Your task to perform on an android device: Open Yahoo.com Image 0: 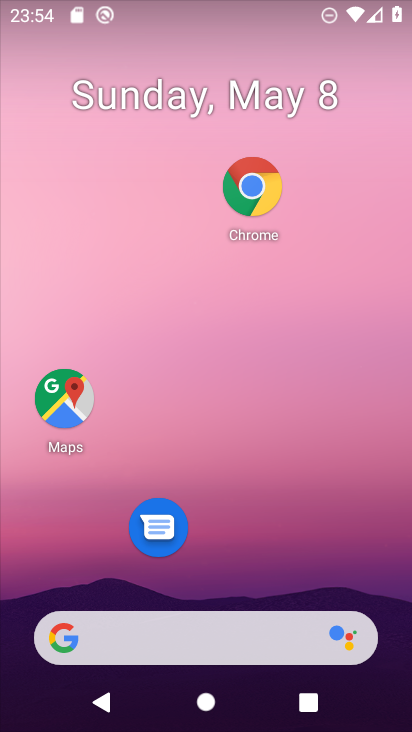
Step 0: drag from (307, 387) to (340, 261)
Your task to perform on an android device: Open Yahoo.com Image 1: 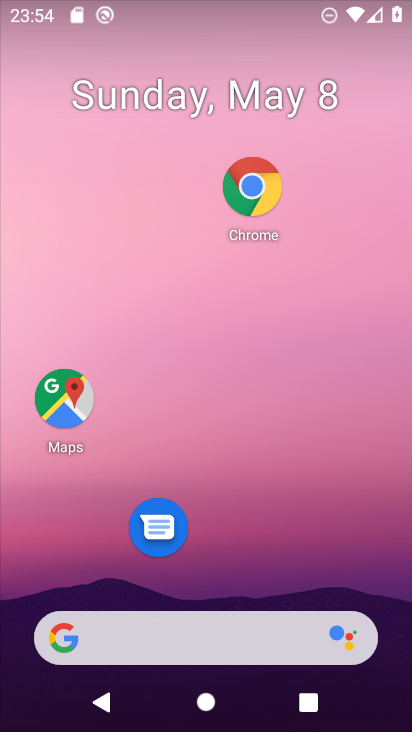
Step 1: click (262, 192)
Your task to perform on an android device: Open Yahoo.com Image 2: 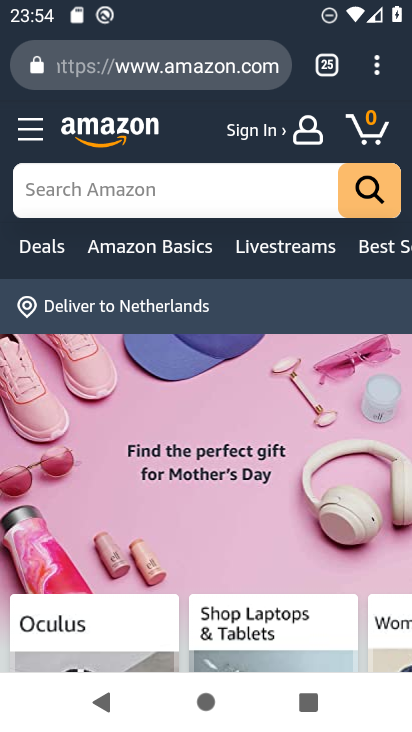
Step 2: click (361, 62)
Your task to perform on an android device: Open Yahoo.com Image 3: 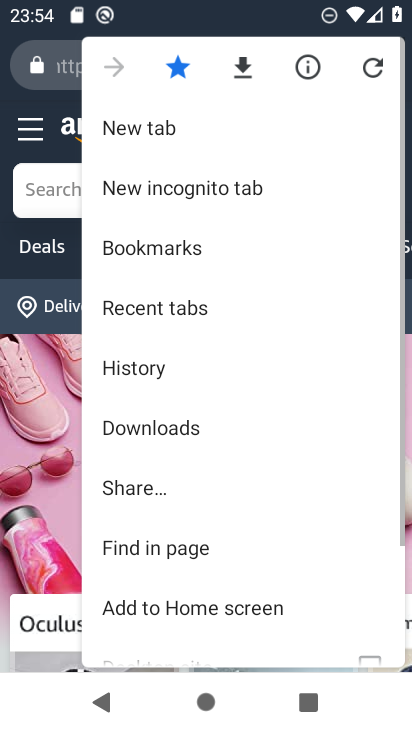
Step 3: click (151, 125)
Your task to perform on an android device: Open Yahoo.com Image 4: 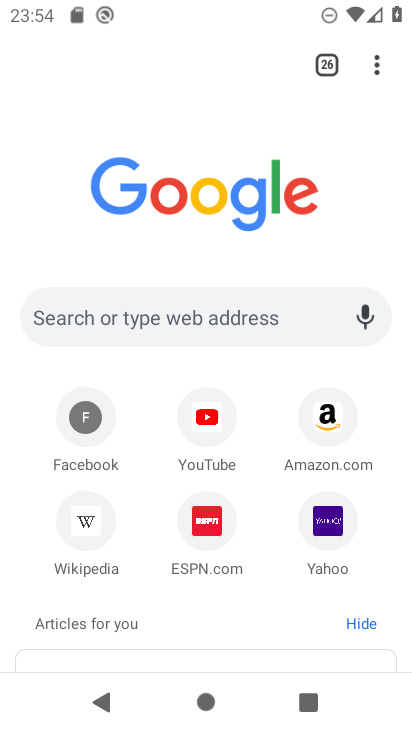
Step 4: click (336, 513)
Your task to perform on an android device: Open Yahoo.com Image 5: 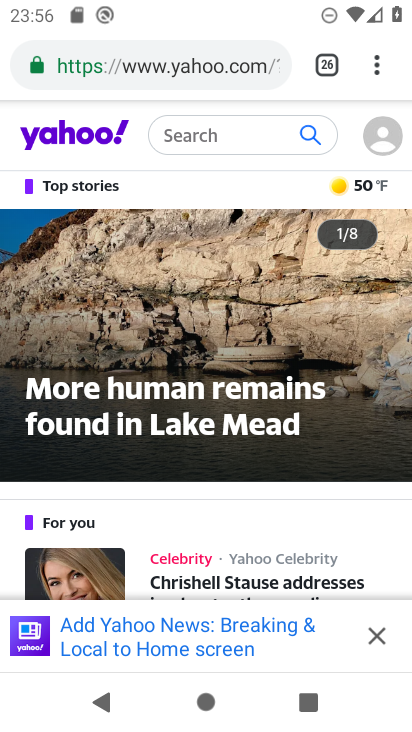
Step 5: task complete